Your task to perform on an android device: snooze an email in the gmail app Image 0: 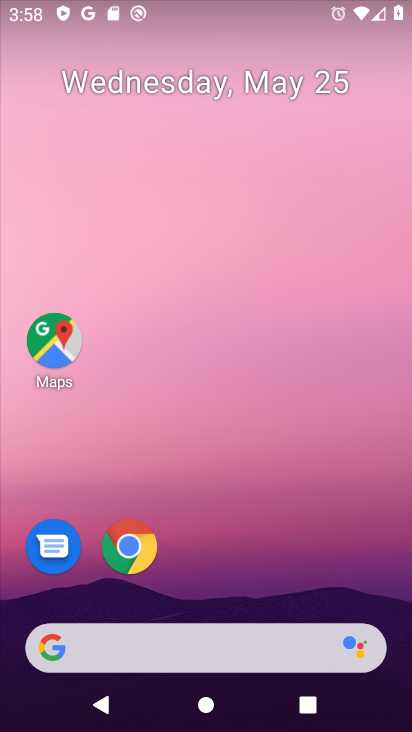
Step 0: drag from (273, 559) to (307, 80)
Your task to perform on an android device: snooze an email in the gmail app Image 1: 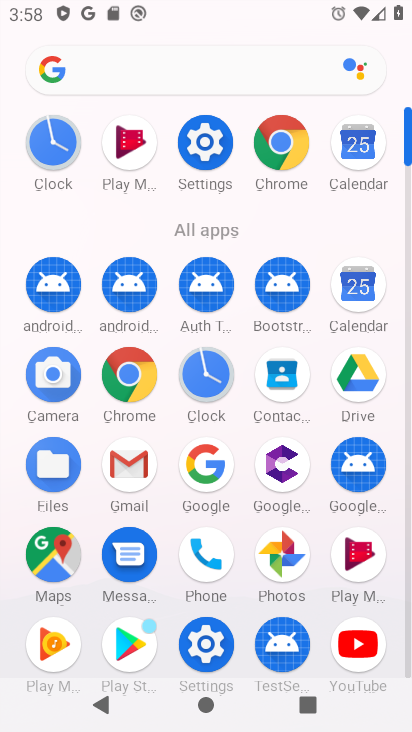
Step 1: click (125, 465)
Your task to perform on an android device: snooze an email in the gmail app Image 2: 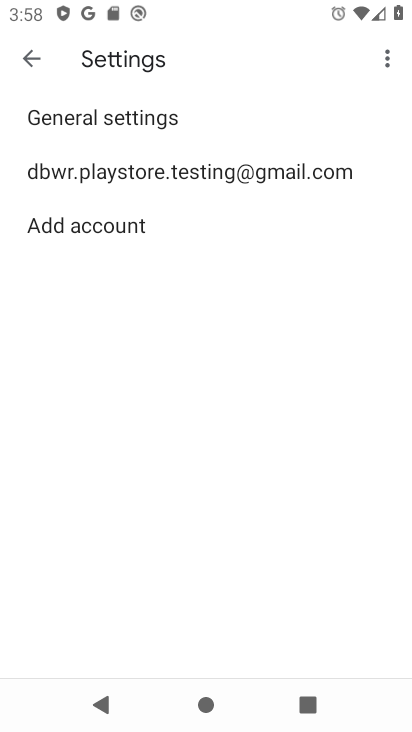
Step 2: click (30, 65)
Your task to perform on an android device: snooze an email in the gmail app Image 3: 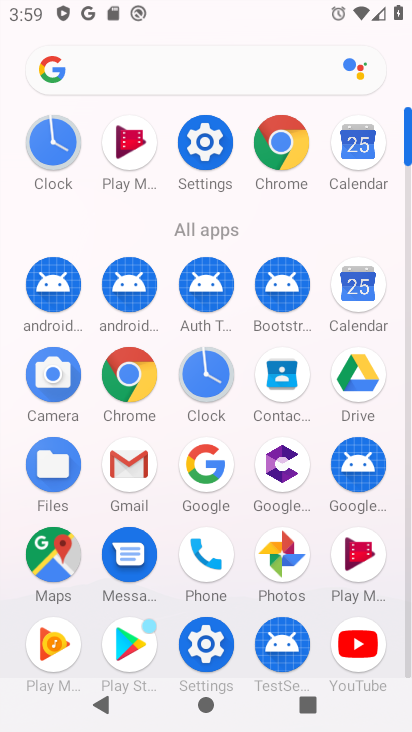
Step 3: click (133, 466)
Your task to perform on an android device: snooze an email in the gmail app Image 4: 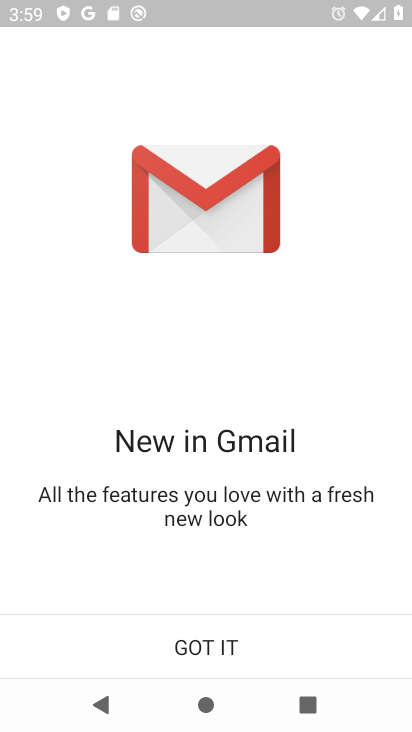
Step 4: click (203, 642)
Your task to perform on an android device: snooze an email in the gmail app Image 5: 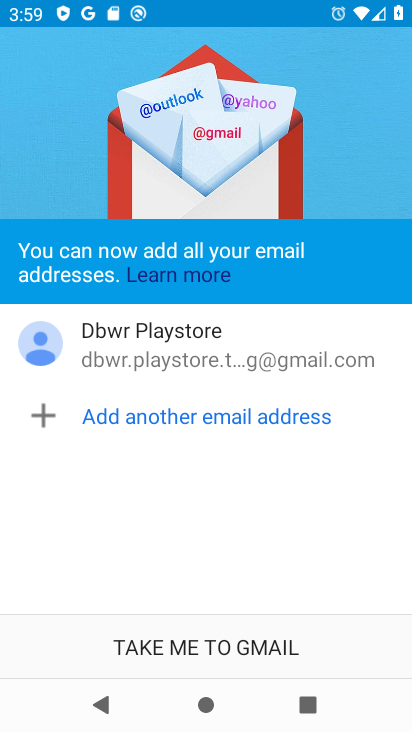
Step 5: click (196, 631)
Your task to perform on an android device: snooze an email in the gmail app Image 6: 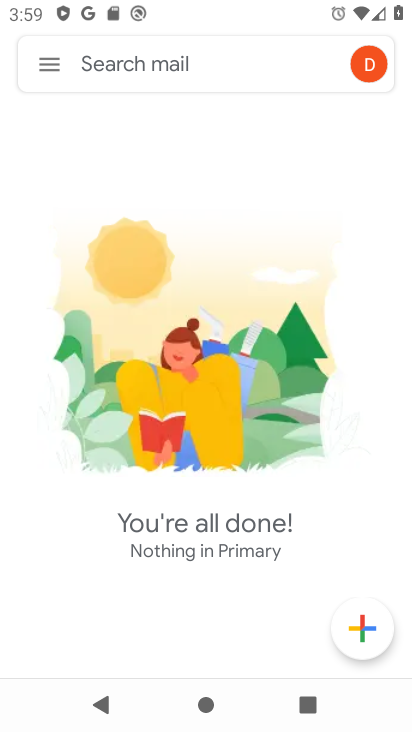
Step 6: click (55, 59)
Your task to perform on an android device: snooze an email in the gmail app Image 7: 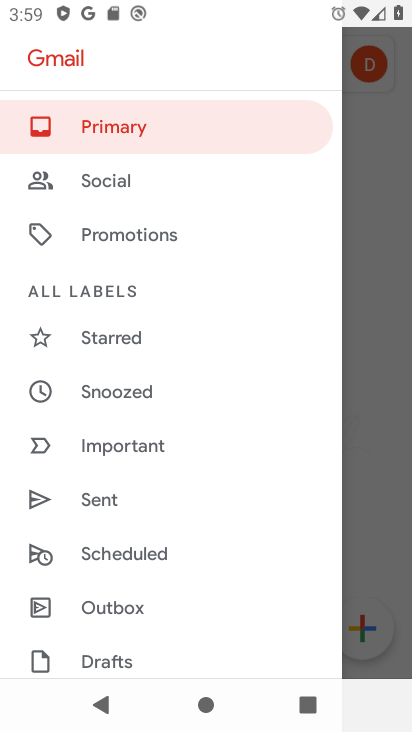
Step 7: drag from (151, 602) to (185, 369)
Your task to perform on an android device: snooze an email in the gmail app Image 8: 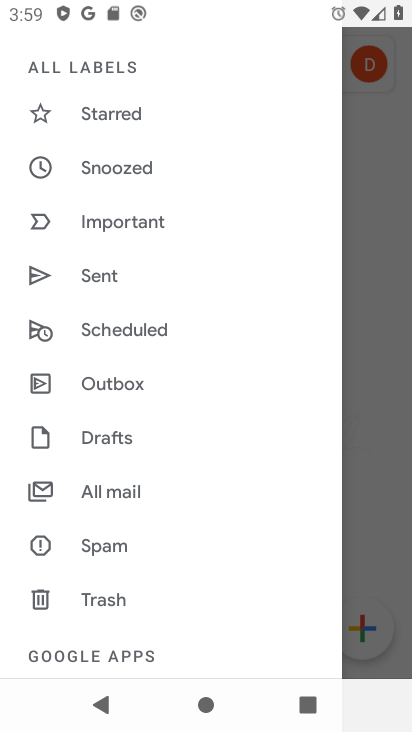
Step 8: click (123, 494)
Your task to perform on an android device: snooze an email in the gmail app Image 9: 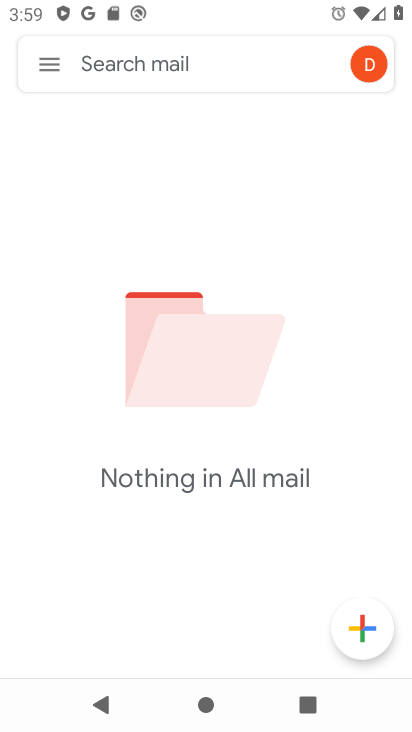
Step 9: task complete